Your task to perform on an android device: Open Yahoo.com Image 0: 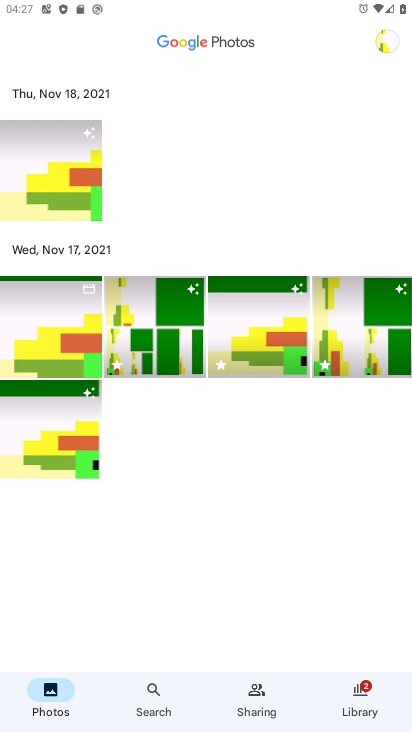
Step 0: press home button
Your task to perform on an android device: Open Yahoo.com Image 1: 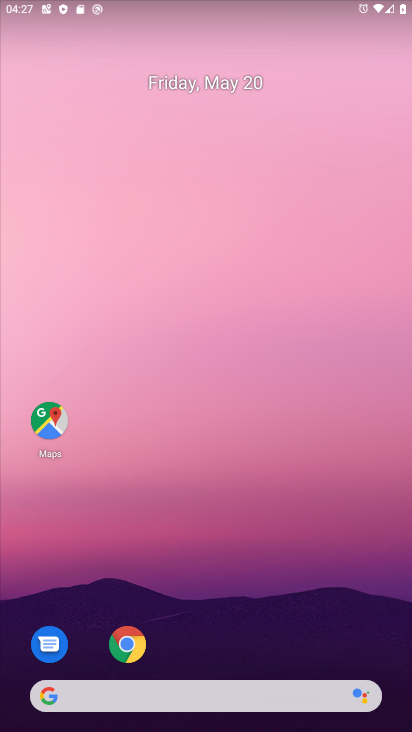
Step 1: drag from (263, 635) to (222, 181)
Your task to perform on an android device: Open Yahoo.com Image 2: 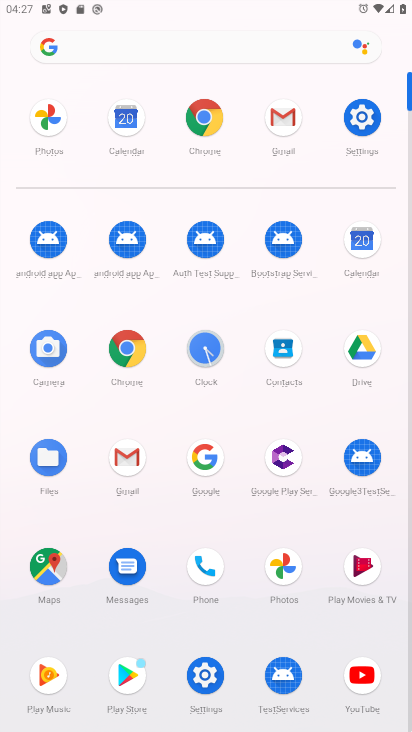
Step 2: click (219, 139)
Your task to perform on an android device: Open Yahoo.com Image 3: 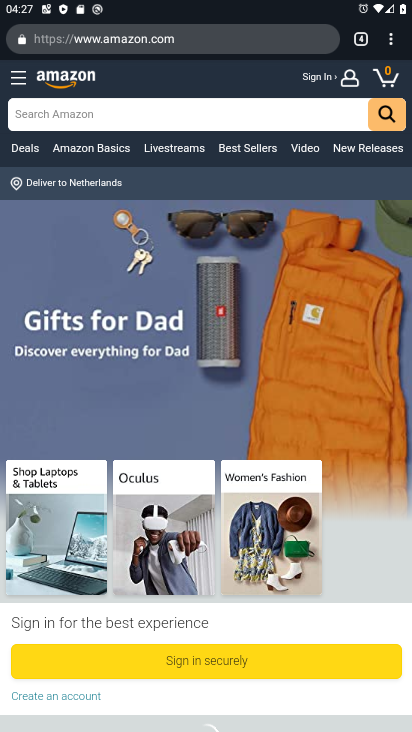
Step 3: click (183, 42)
Your task to perform on an android device: Open Yahoo.com Image 4: 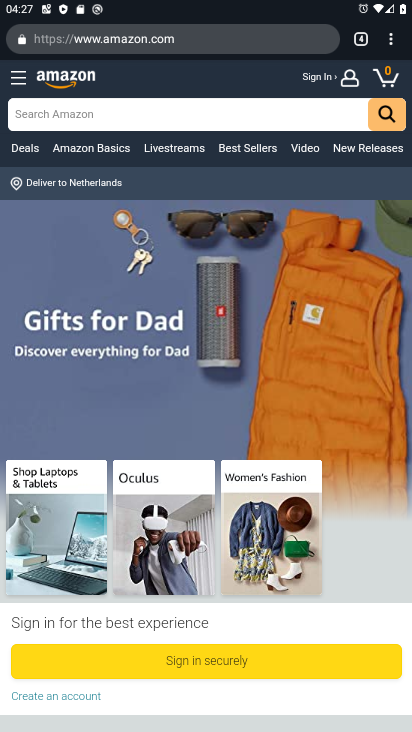
Step 4: click (183, 42)
Your task to perform on an android device: Open Yahoo.com Image 5: 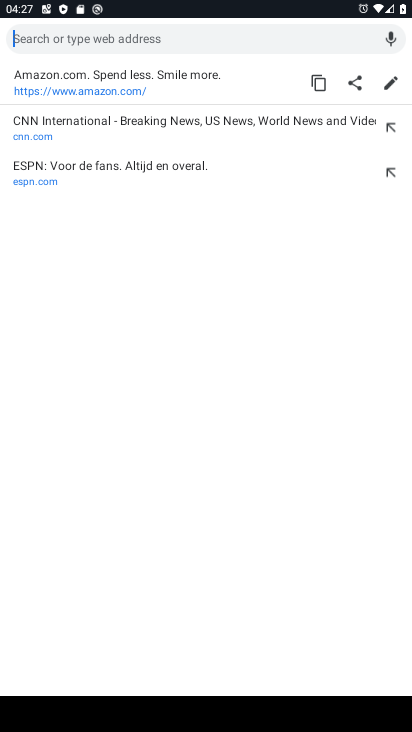
Step 5: type "y"
Your task to perform on an android device: Open Yahoo.com Image 6: 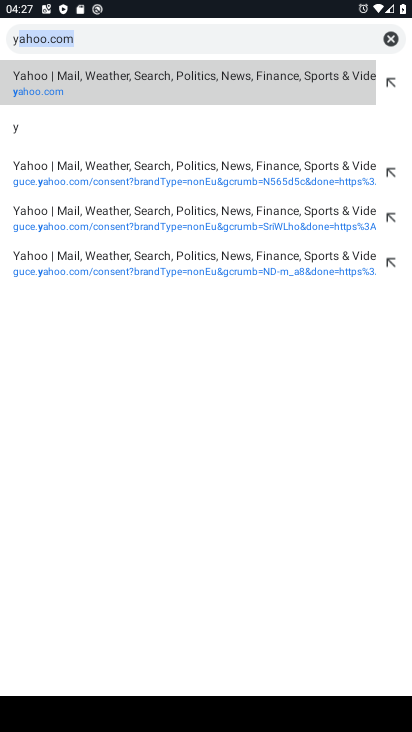
Step 6: click (45, 71)
Your task to perform on an android device: Open Yahoo.com Image 7: 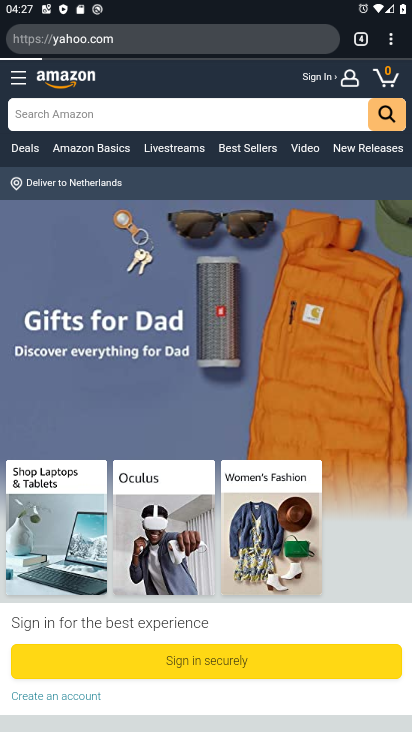
Step 7: task complete